Your task to perform on an android device: Open Chrome and go to settings Image 0: 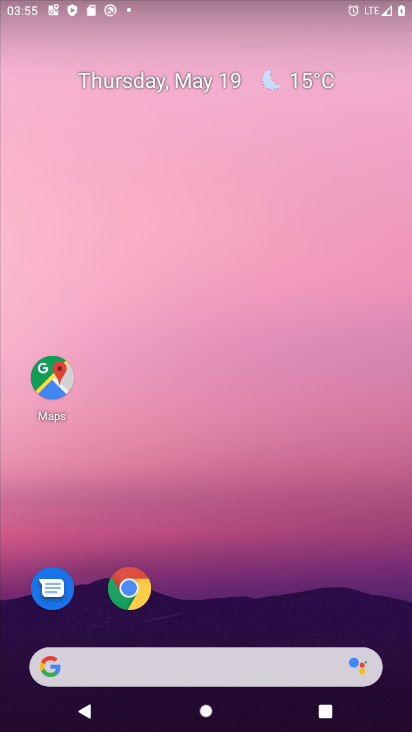
Step 0: click (131, 595)
Your task to perform on an android device: Open Chrome and go to settings Image 1: 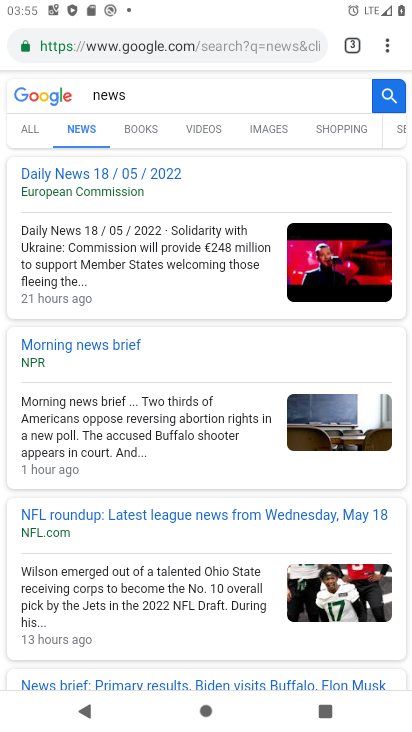
Step 1: click (391, 53)
Your task to perform on an android device: Open Chrome and go to settings Image 2: 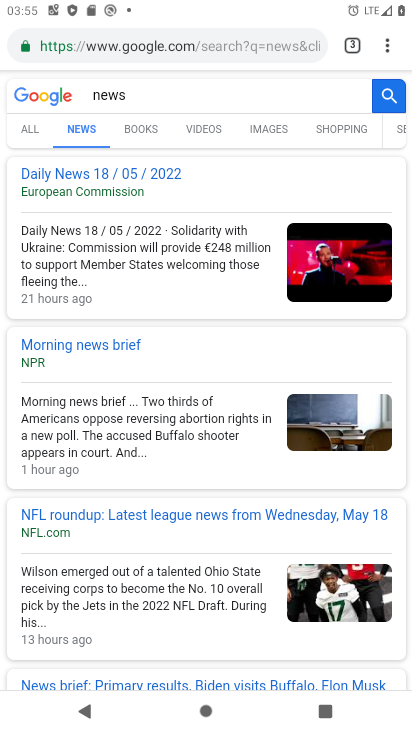
Step 2: task complete